Your task to perform on an android device: Find coffee shops on Maps Image 0: 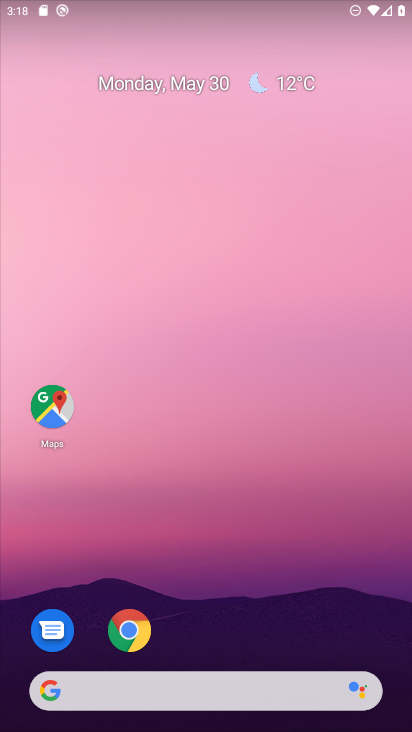
Step 0: click (48, 404)
Your task to perform on an android device: Find coffee shops on Maps Image 1: 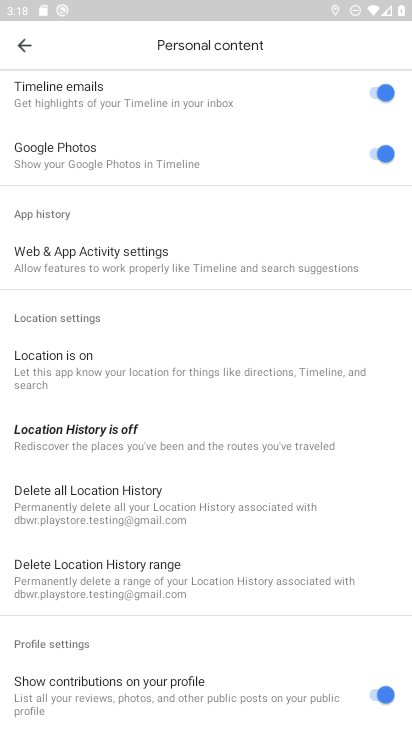
Step 1: click (21, 30)
Your task to perform on an android device: Find coffee shops on Maps Image 2: 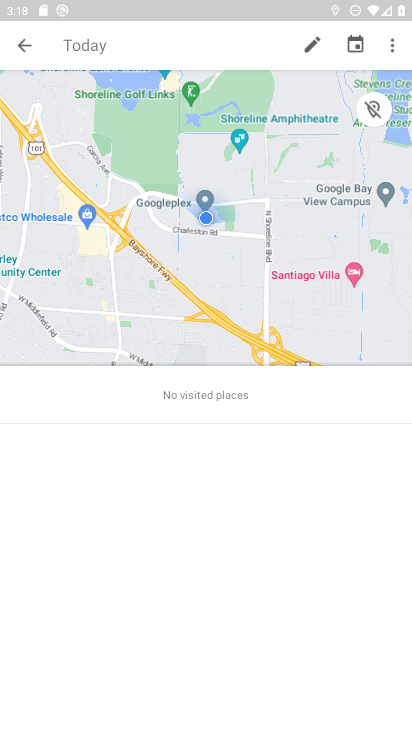
Step 2: click (23, 46)
Your task to perform on an android device: Find coffee shops on Maps Image 3: 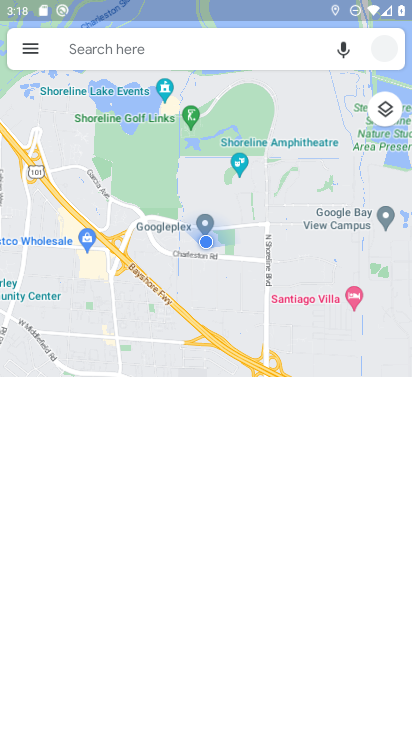
Step 3: click (106, 52)
Your task to perform on an android device: Find coffee shops on Maps Image 4: 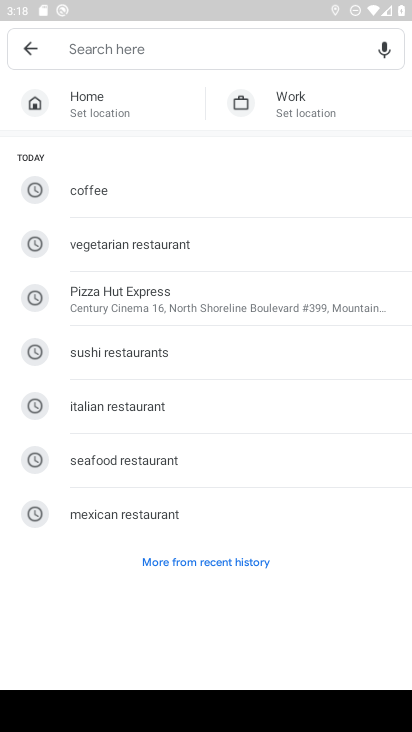
Step 4: type "coffe shops"
Your task to perform on an android device: Find coffee shops on Maps Image 5: 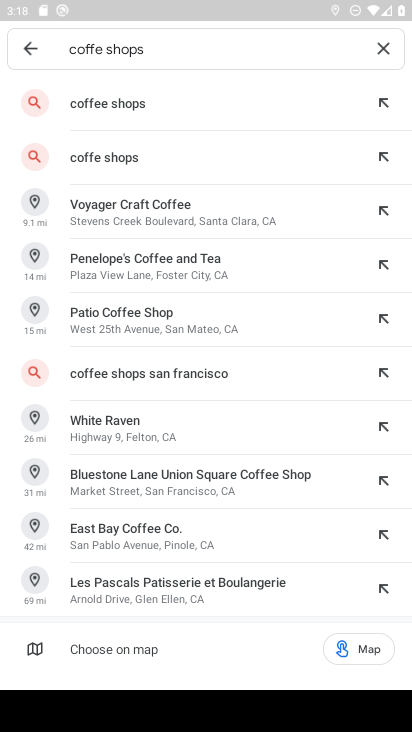
Step 5: click (141, 110)
Your task to perform on an android device: Find coffee shops on Maps Image 6: 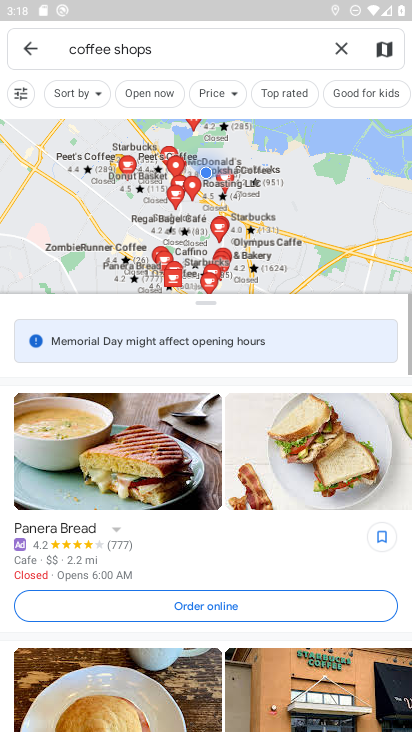
Step 6: task complete